Your task to perform on an android device: turn on translation in the chrome app Image 0: 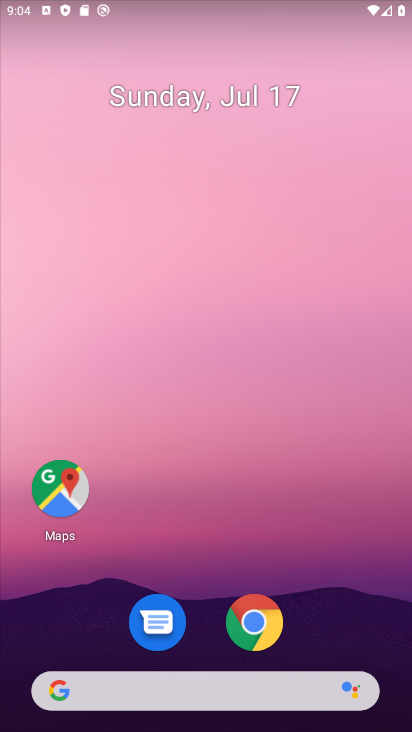
Step 0: click (265, 633)
Your task to perform on an android device: turn on translation in the chrome app Image 1: 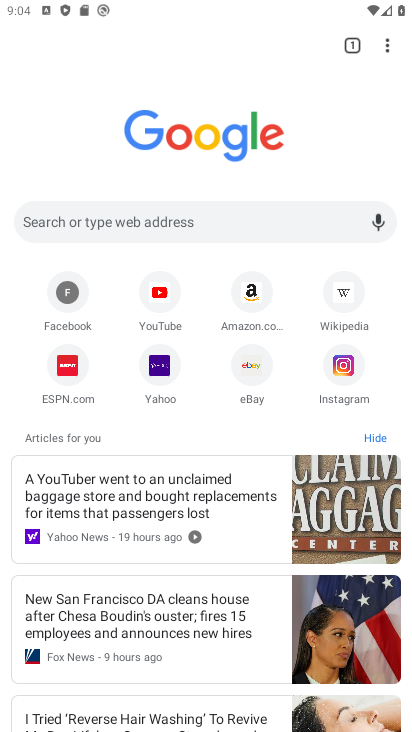
Step 1: click (391, 39)
Your task to perform on an android device: turn on translation in the chrome app Image 2: 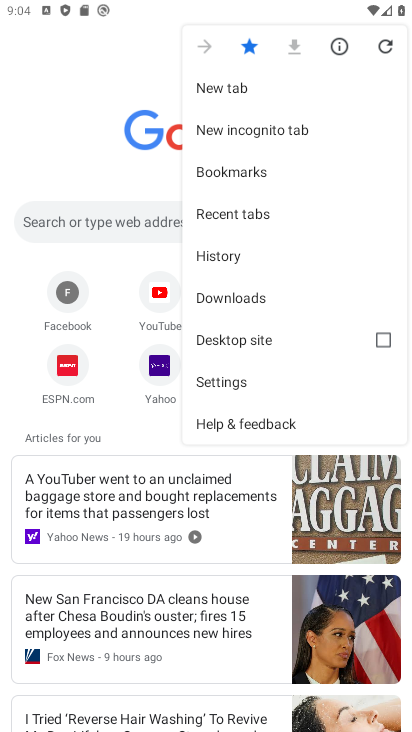
Step 2: click (235, 382)
Your task to perform on an android device: turn on translation in the chrome app Image 3: 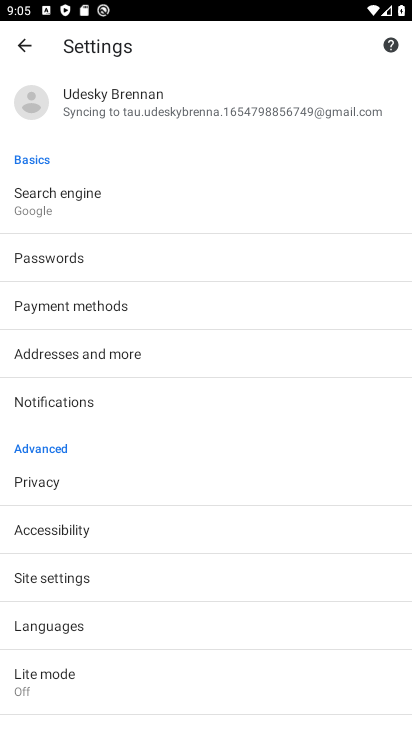
Step 3: click (92, 629)
Your task to perform on an android device: turn on translation in the chrome app Image 4: 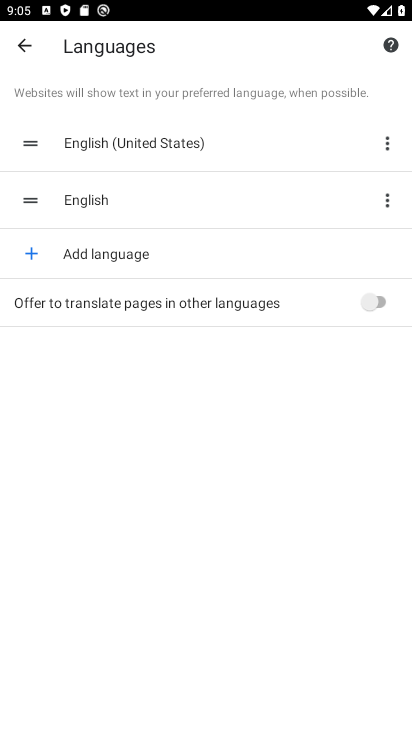
Step 4: click (381, 296)
Your task to perform on an android device: turn on translation in the chrome app Image 5: 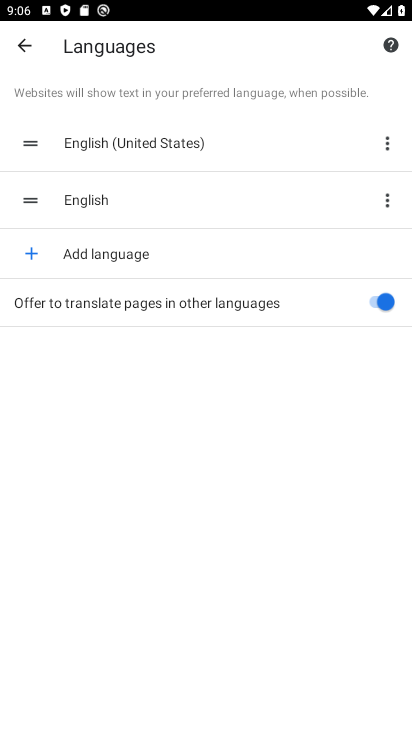
Step 5: task complete